Your task to perform on an android device: Go to accessibility settings Image 0: 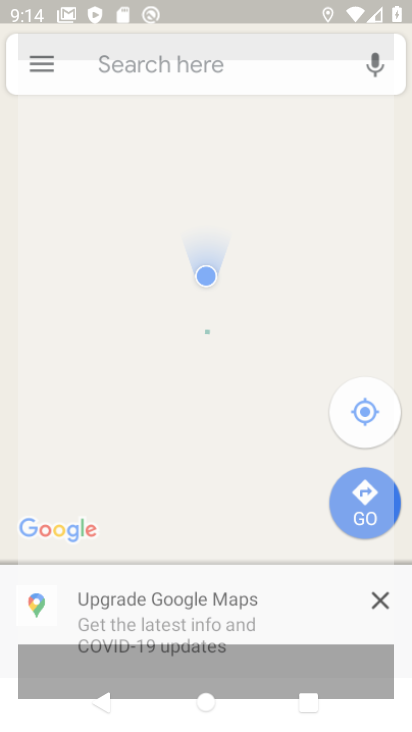
Step 0: press home button
Your task to perform on an android device: Go to accessibility settings Image 1: 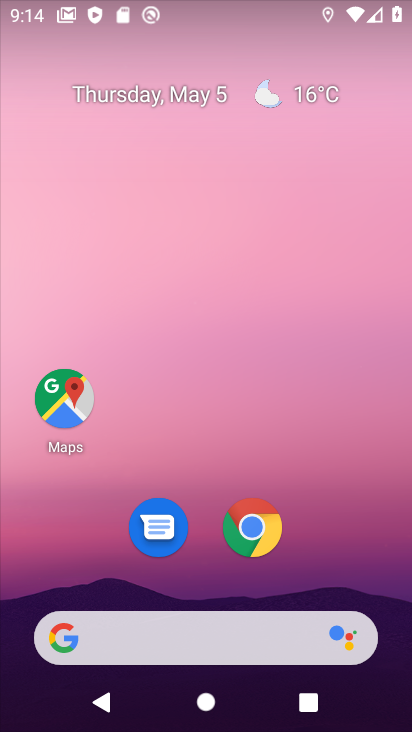
Step 1: drag from (68, 613) to (191, 100)
Your task to perform on an android device: Go to accessibility settings Image 2: 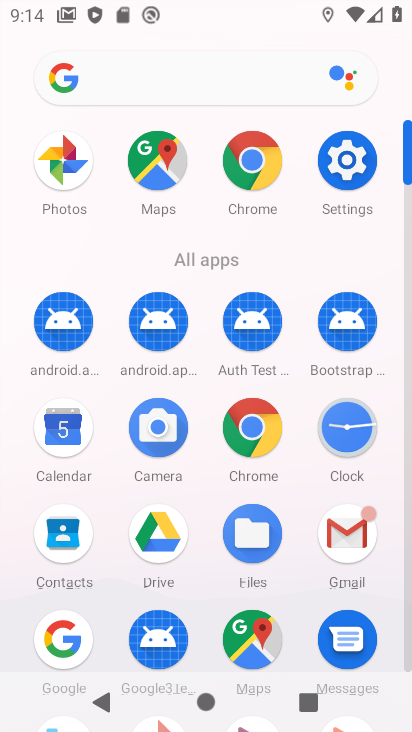
Step 2: click (347, 163)
Your task to perform on an android device: Go to accessibility settings Image 3: 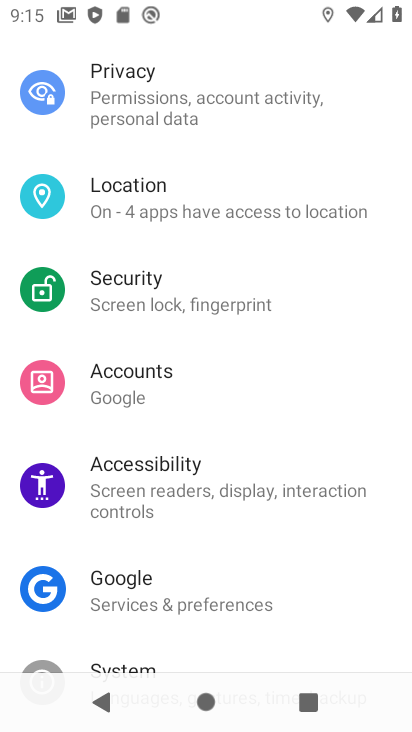
Step 3: click (200, 492)
Your task to perform on an android device: Go to accessibility settings Image 4: 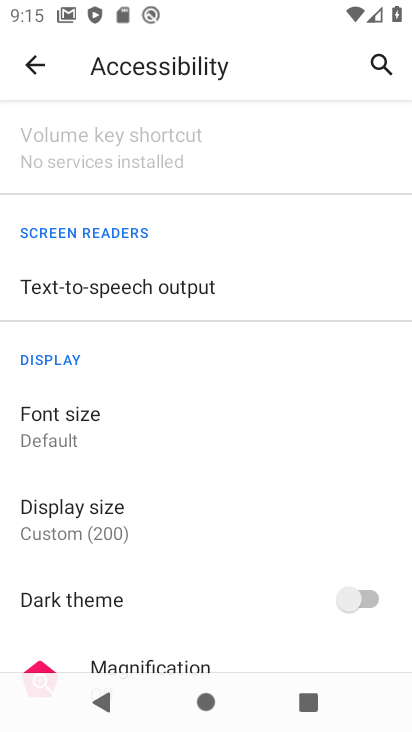
Step 4: task complete